Your task to perform on an android device: Play the last video I watched on Youtube Image 0: 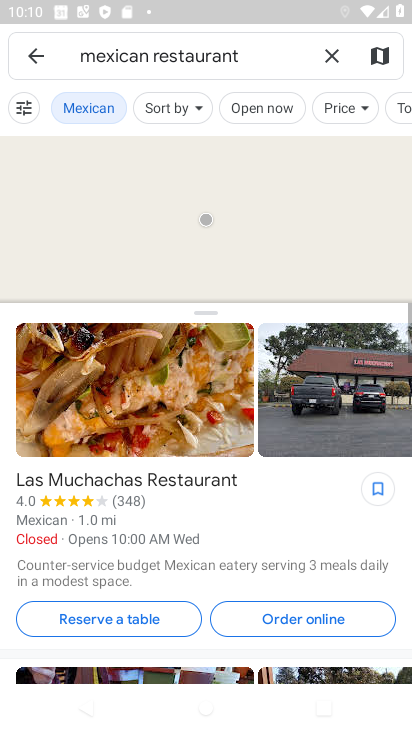
Step 0: press home button
Your task to perform on an android device: Play the last video I watched on Youtube Image 1: 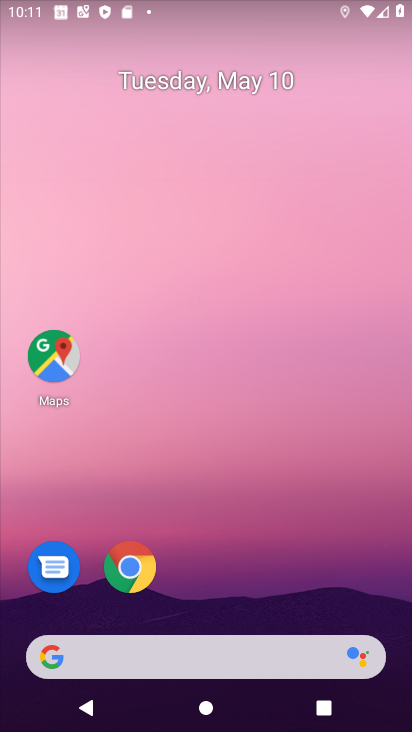
Step 1: drag from (31, 521) to (216, 111)
Your task to perform on an android device: Play the last video I watched on Youtube Image 2: 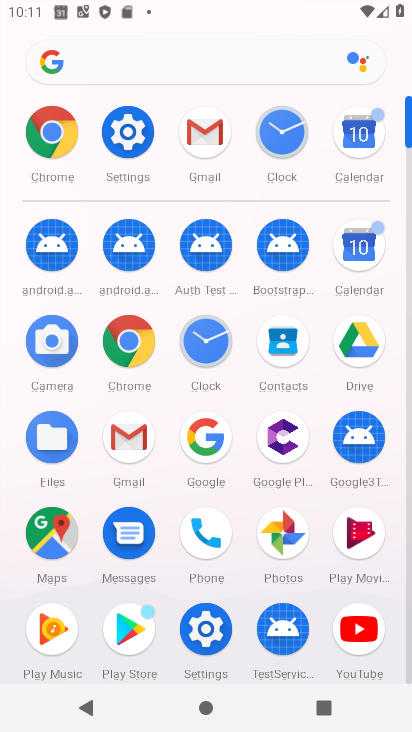
Step 2: click (347, 632)
Your task to perform on an android device: Play the last video I watched on Youtube Image 3: 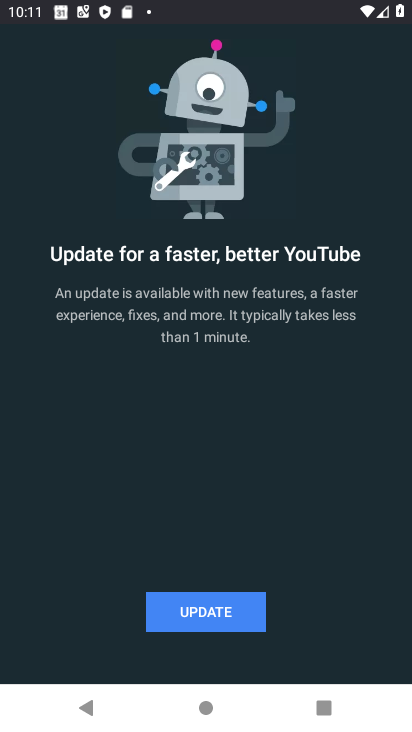
Step 3: task complete